Your task to perform on an android device: Open calendar and show me the second week of next month Image 0: 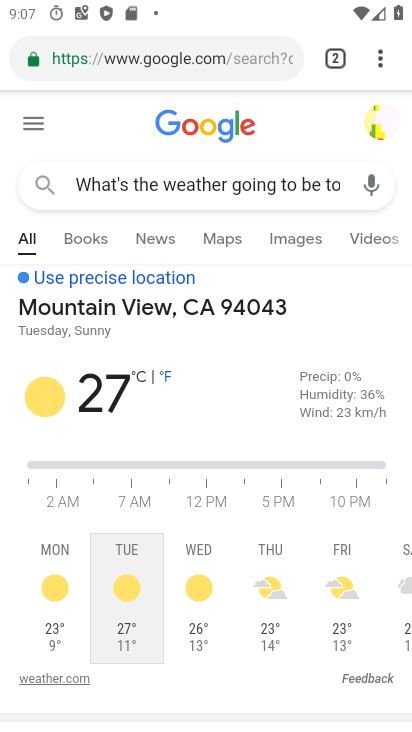
Step 0: press back button
Your task to perform on an android device: Open calendar and show me the second week of next month Image 1: 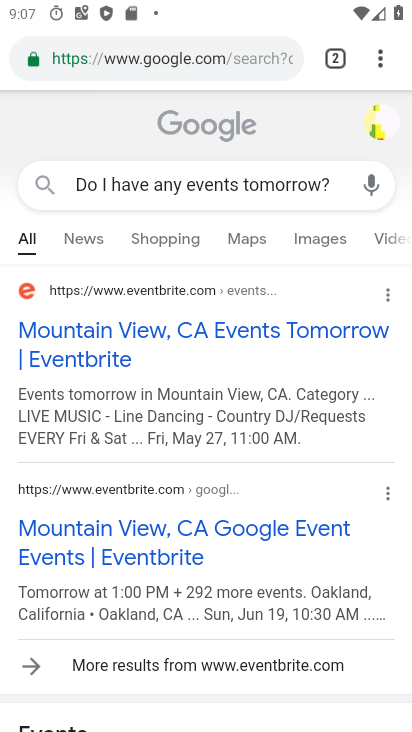
Step 1: press home button
Your task to perform on an android device: Open calendar and show me the second week of next month Image 2: 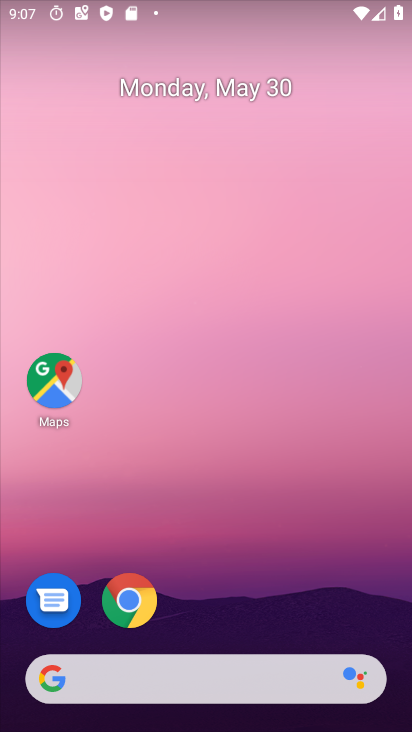
Step 2: drag from (273, 596) to (289, 24)
Your task to perform on an android device: Open calendar and show me the second week of next month Image 3: 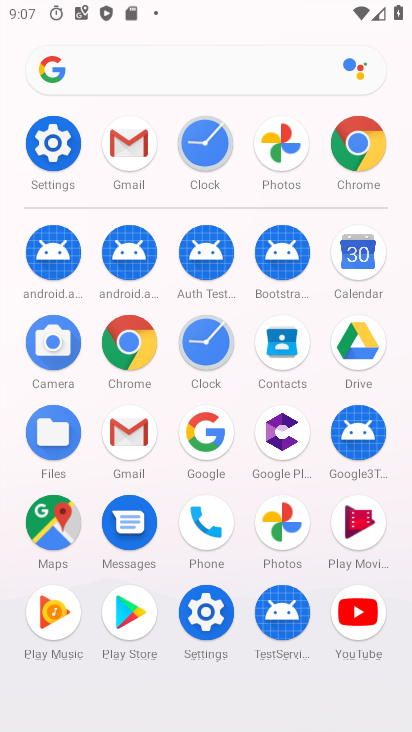
Step 3: drag from (0, 590) to (2, 305)
Your task to perform on an android device: Open calendar and show me the second week of next month Image 4: 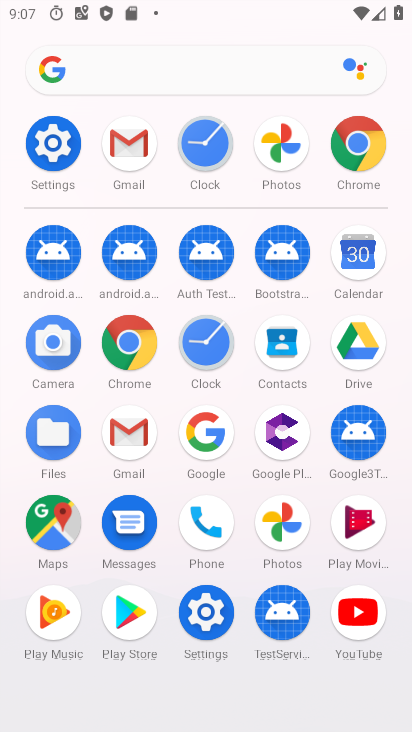
Step 4: drag from (10, 400) to (10, 301)
Your task to perform on an android device: Open calendar and show me the second week of next month Image 5: 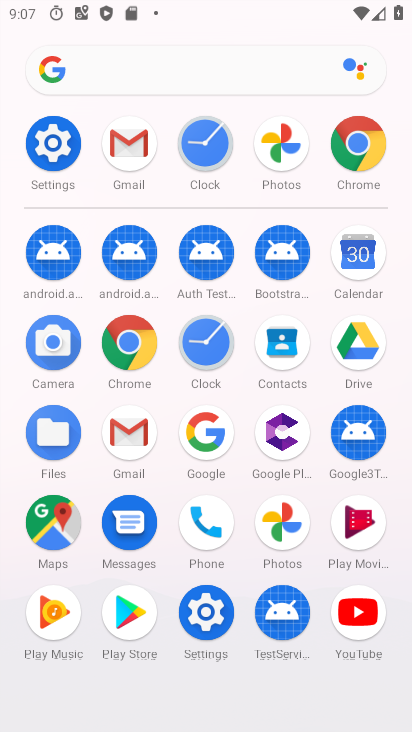
Step 5: click (360, 248)
Your task to perform on an android device: Open calendar and show me the second week of next month Image 6: 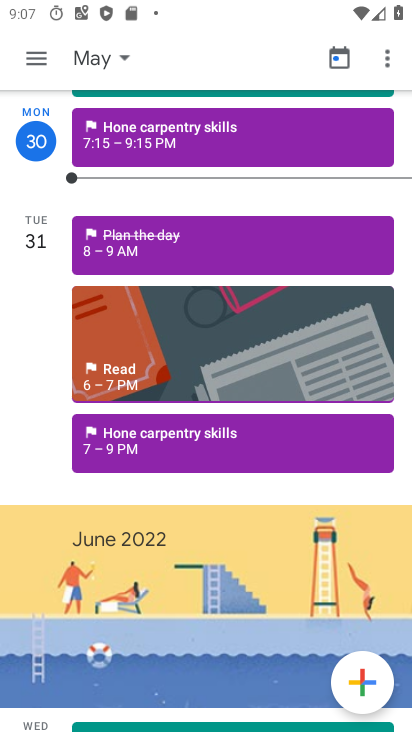
Step 6: click (85, 56)
Your task to perform on an android device: Open calendar and show me the second week of next month Image 7: 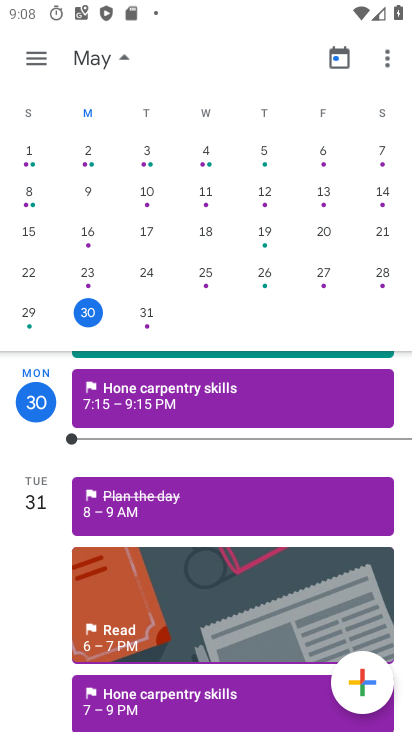
Step 7: drag from (373, 211) to (17, 191)
Your task to perform on an android device: Open calendar and show me the second week of next month Image 8: 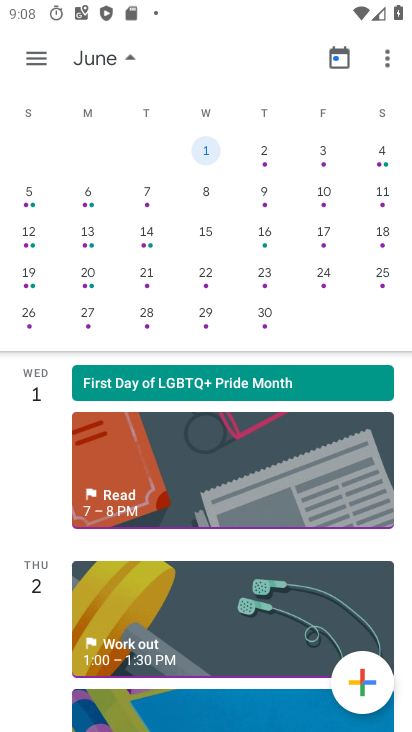
Step 8: click (26, 195)
Your task to perform on an android device: Open calendar and show me the second week of next month Image 9: 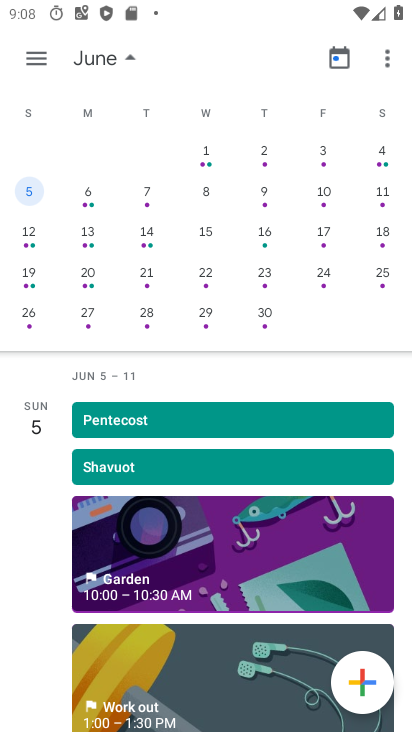
Step 9: click (26, 58)
Your task to perform on an android device: Open calendar and show me the second week of next month Image 10: 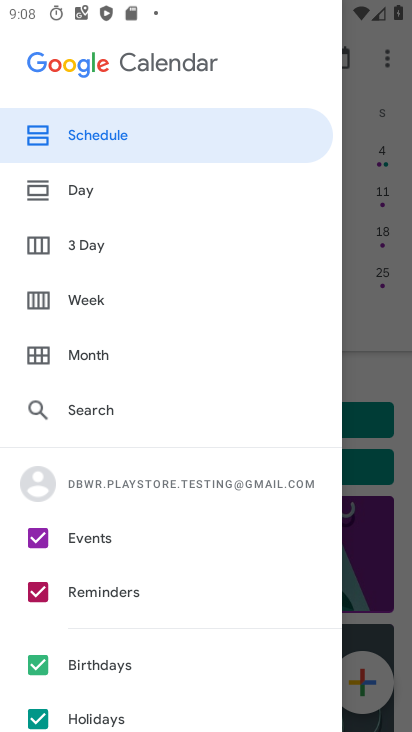
Step 10: click (94, 297)
Your task to perform on an android device: Open calendar and show me the second week of next month Image 11: 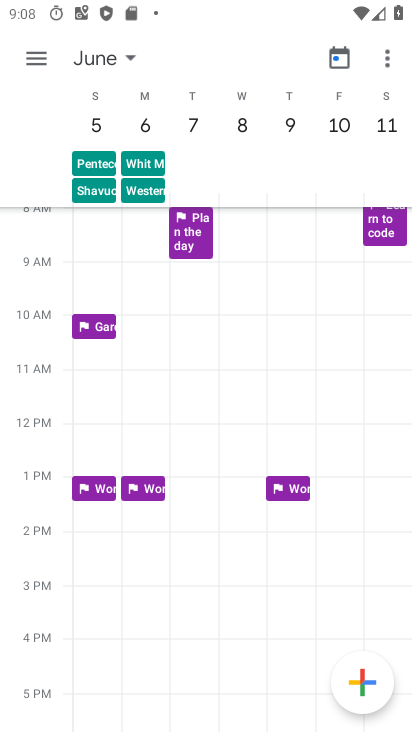
Step 11: task complete